Your task to perform on an android device: Turn on the flashlight Image 0: 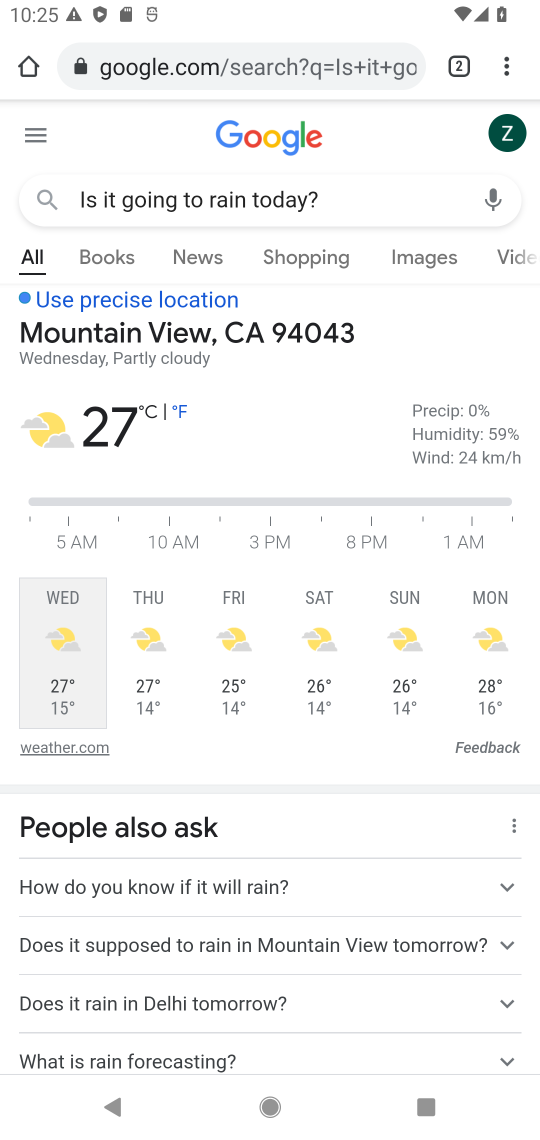
Step 0: drag from (326, 0) to (353, 689)
Your task to perform on an android device: Turn on the flashlight Image 1: 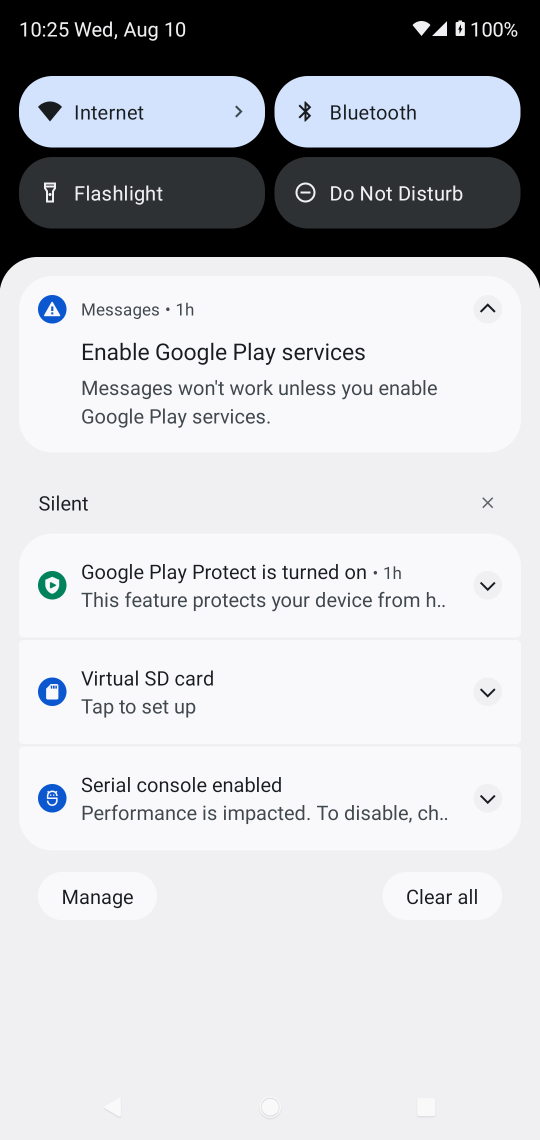
Step 1: click (119, 187)
Your task to perform on an android device: Turn on the flashlight Image 2: 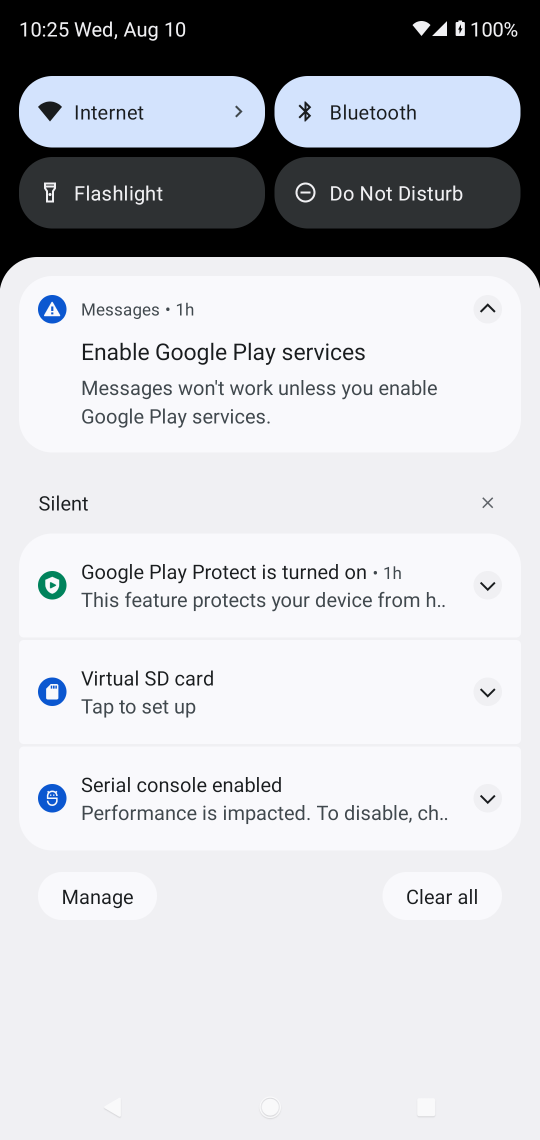
Step 2: task complete